Your task to perform on an android device: toggle show notifications on the lock screen Image 0: 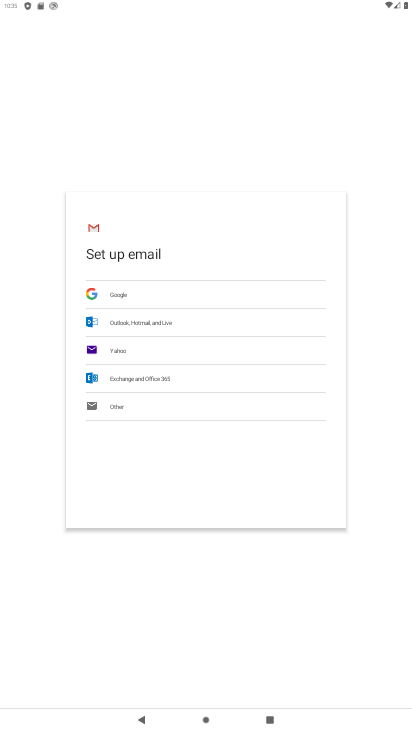
Step 0: press home button
Your task to perform on an android device: toggle show notifications on the lock screen Image 1: 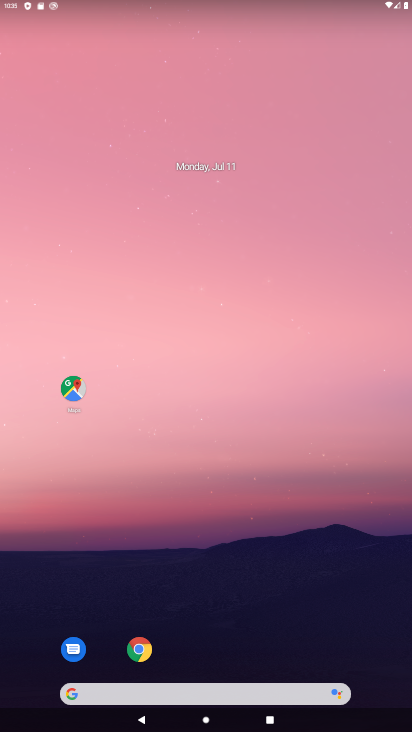
Step 1: drag from (266, 498) to (231, 123)
Your task to perform on an android device: toggle show notifications on the lock screen Image 2: 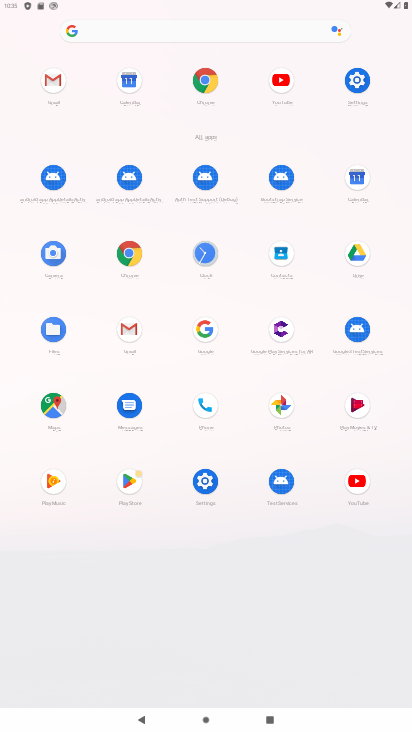
Step 2: click (361, 72)
Your task to perform on an android device: toggle show notifications on the lock screen Image 3: 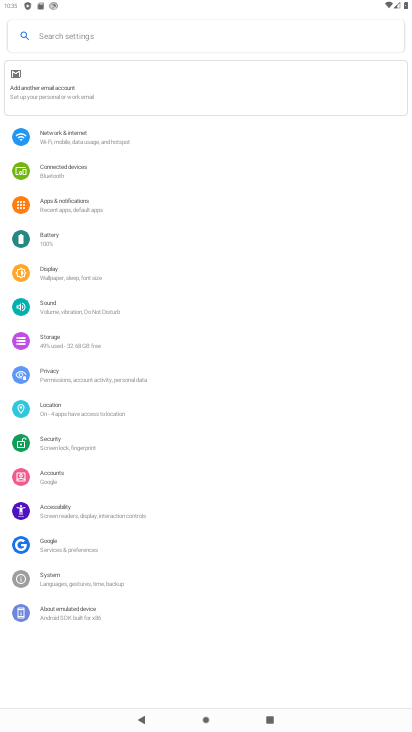
Step 3: click (88, 212)
Your task to perform on an android device: toggle show notifications on the lock screen Image 4: 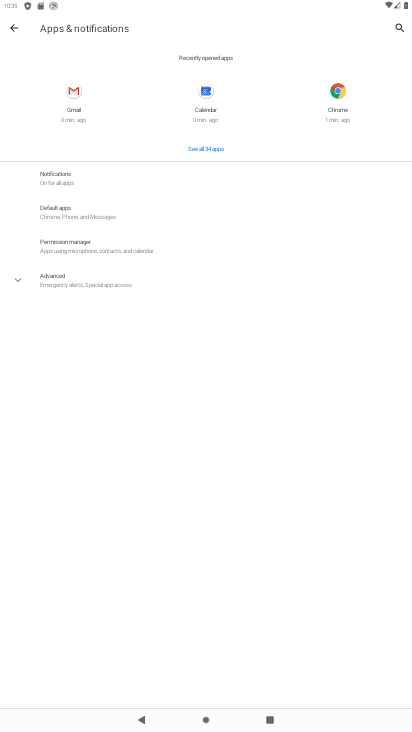
Step 4: click (67, 176)
Your task to perform on an android device: toggle show notifications on the lock screen Image 5: 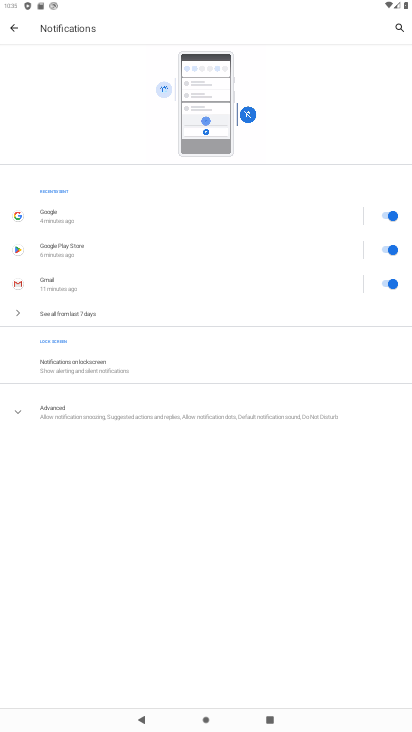
Step 5: click (131, 419)
Your task to perform on an android device: toggle show notifications on the lock screen Image 6: 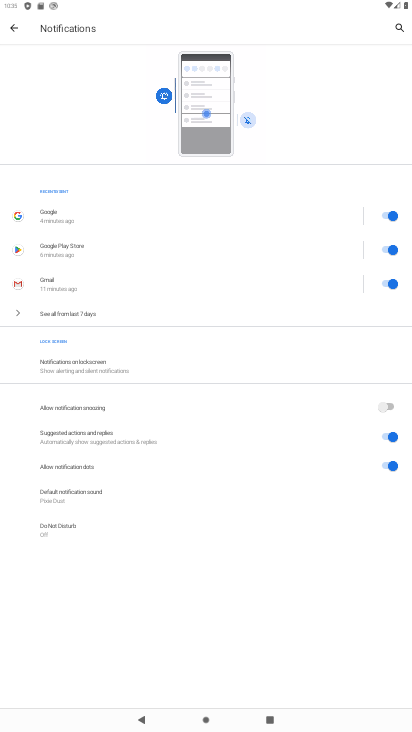
Step 6: click (154, 369)
Your task to perform on an android device: toggle show notifications on the lock screen Image 7: 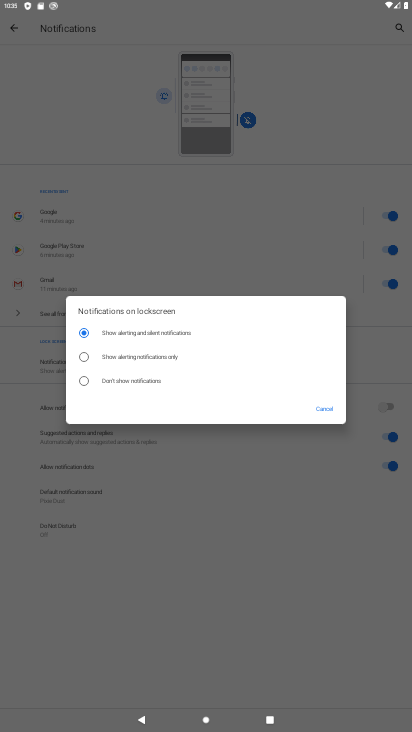
Step 7: click (134, 357)
Your task to perform on an android device: toggle show notifications on the lock screen Image 8: 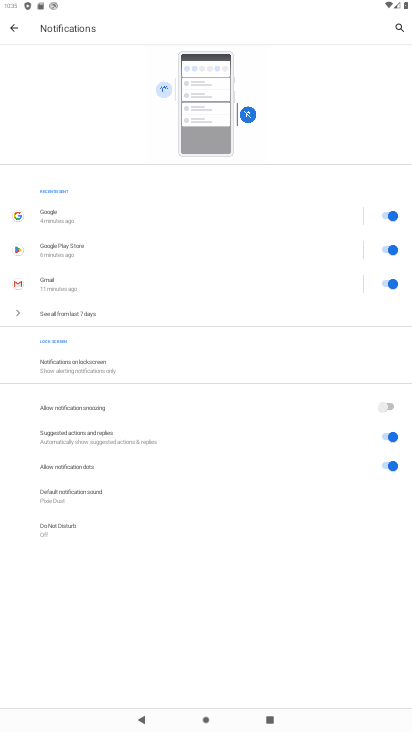
Step 8: task complete